Your task to perform on an android device: Open Android settings Image 0: 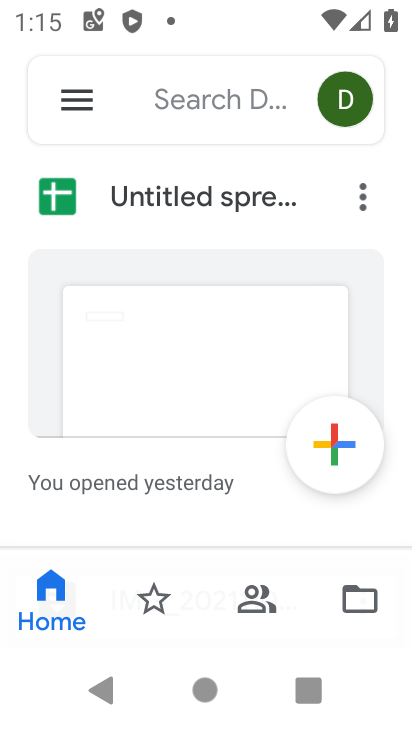
Step 0: press home button
Your task to perform on an android device: Open Android settings Image 1: 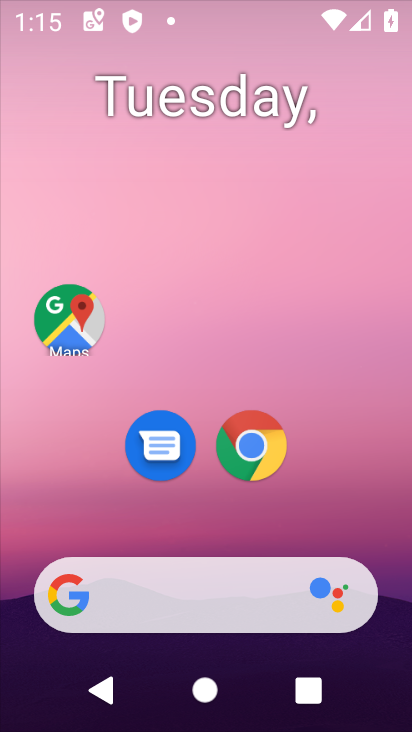
Step 1: drag from (354, 523) to (384, 47)
Your task to perform on an android device: Open Android settings Image 2: 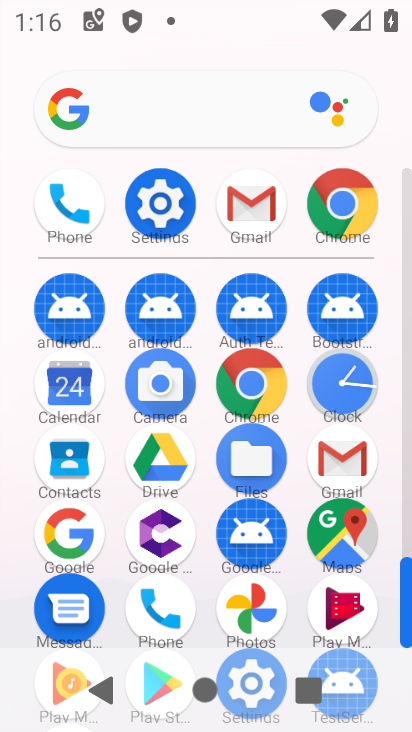
Step 2: click (177, 181)
Your task to perform on an android device: Open Android settings Image 3: 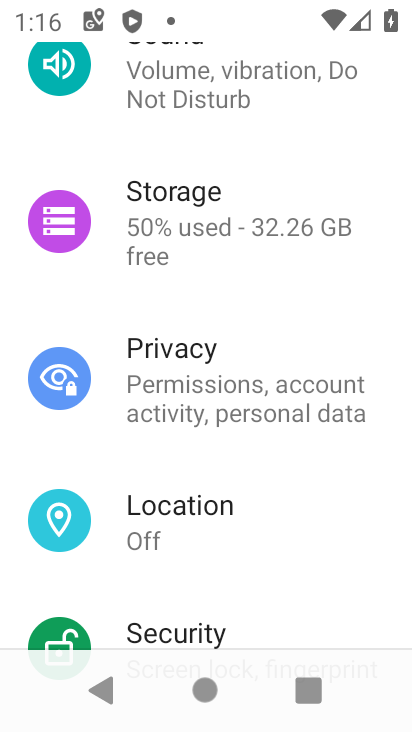
Step 3: task complete